Your task to perform on an android device: change text size in settings app Image 0: 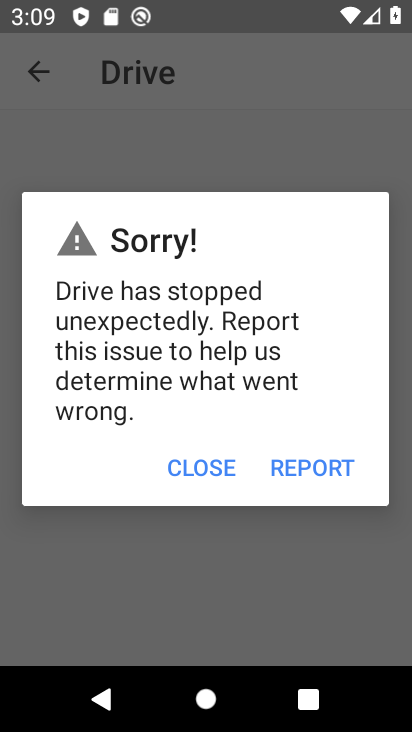
Step 0: press home button
Your task to perform on an android device: change text size in settings app Image 1: 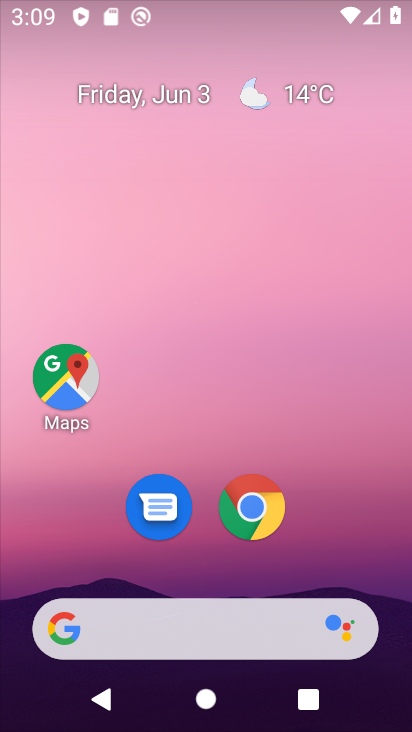
Step 1: drag from (355, 372) to (348, 3)
Your task to perform on an android device: change text size in settings app Image 2: 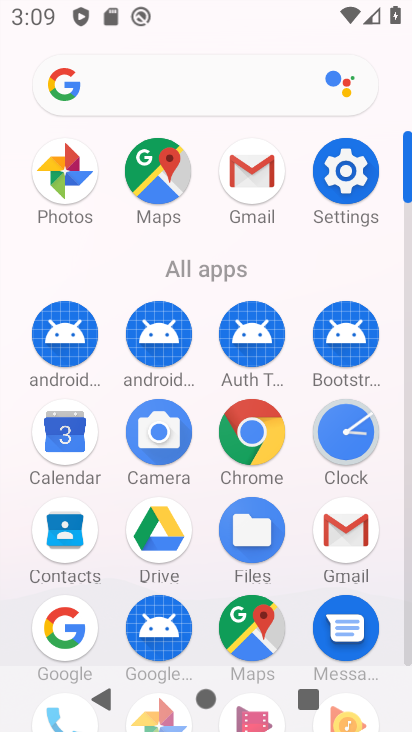
Step 2: click (343, 174)
Your task to perform on an android device: change text size in settings app Image 3: 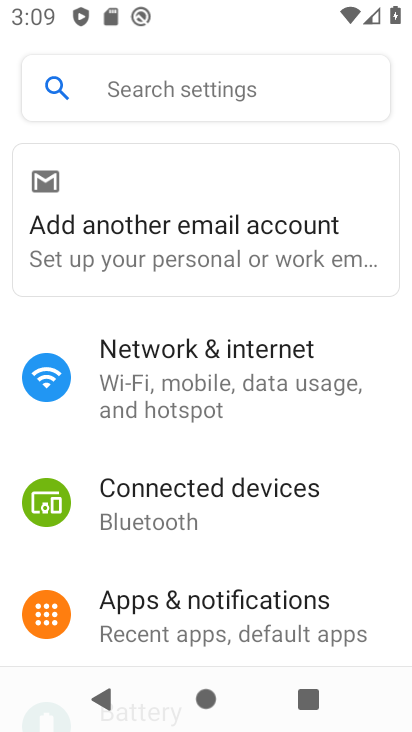
Step 3: drag from (360, 576) to (319, 210)
Your task to perform on an android device: change text size in settings app Image 4: 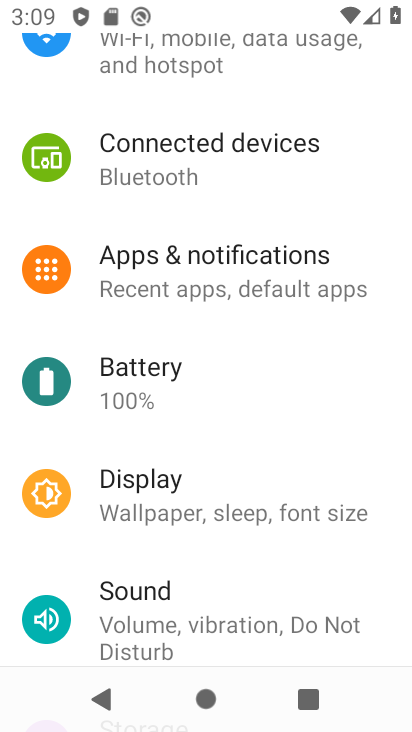
Step 4: click (298, 490)
Your task to perform on an android device: change text size in settings app Image 5: 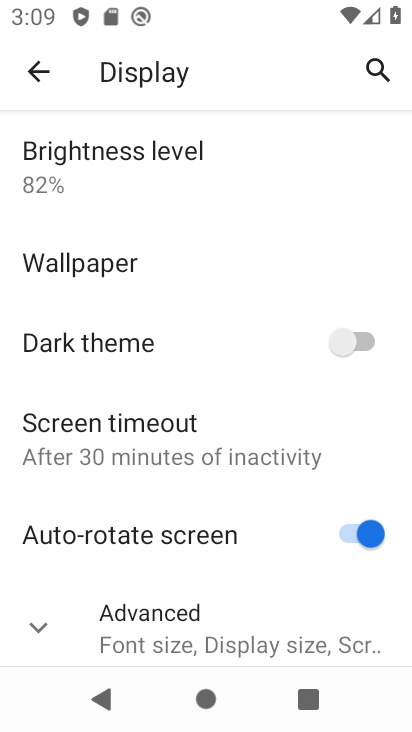
Step 5: click (252, 622)
Your task to perform on an android device: change text size in settings app Image 6: 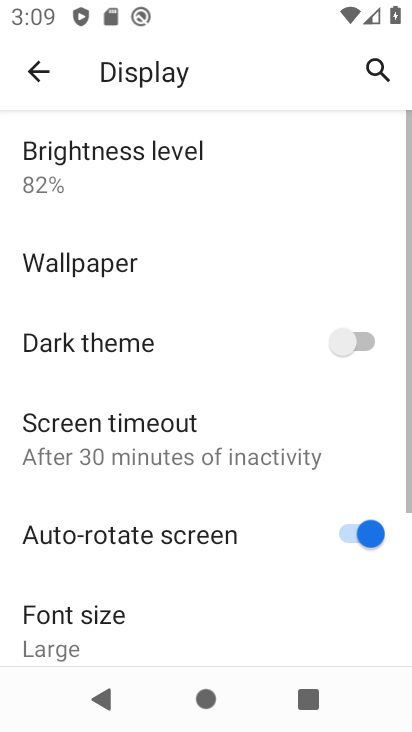
Step 6: drag from (258, 566) to (250, 310)
Your task to perform on an android device: change text size in settings app Image 7: 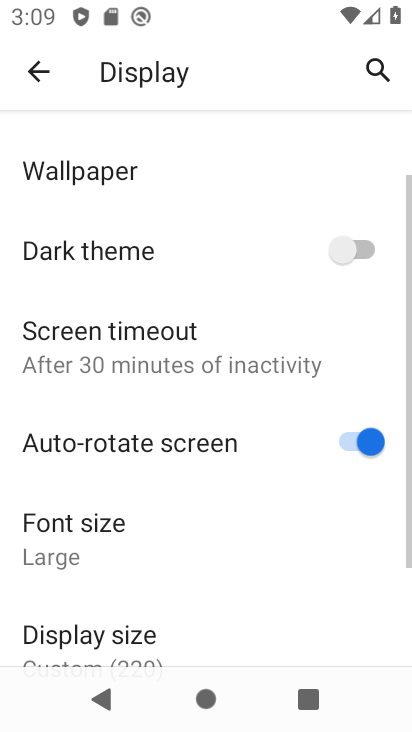
Step 7: click (68, 537)
Your task to perform on an android device: change text size in settings app Image 8: 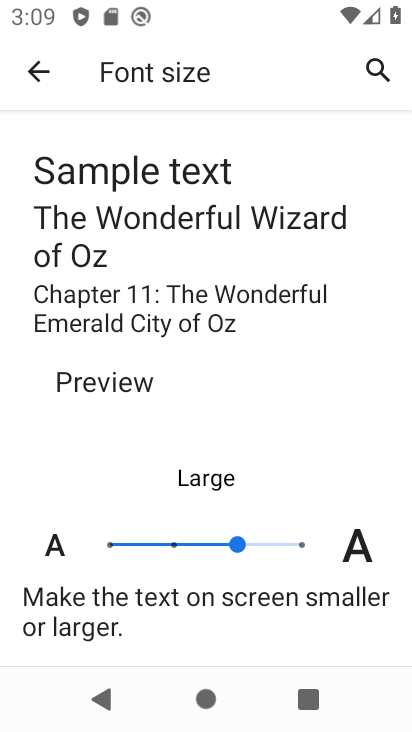
Step 8: click (171, 545)
Your task to perform on an android device: change text size in settings app Image 9: 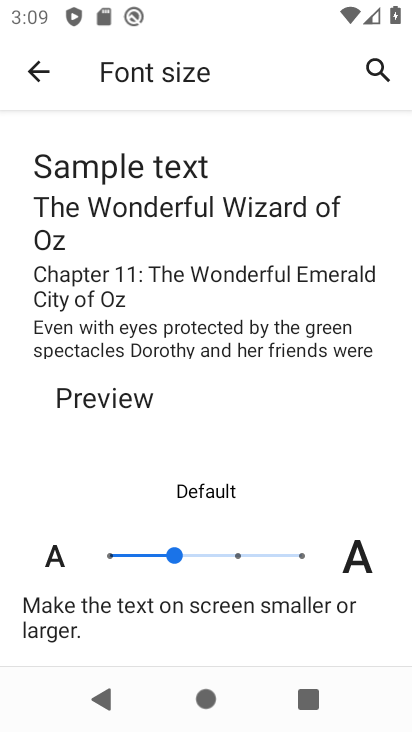
Step 9: task complete